Your task to perform on an android device: Do I have any events today? Image 0: 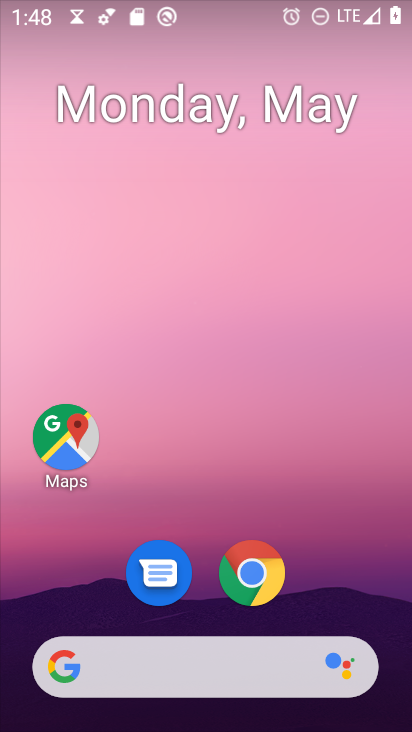
Step 0: drag from (238, 644) to (402, 36)
Your task to perform on an android device: Do I have any events today? Image 1: 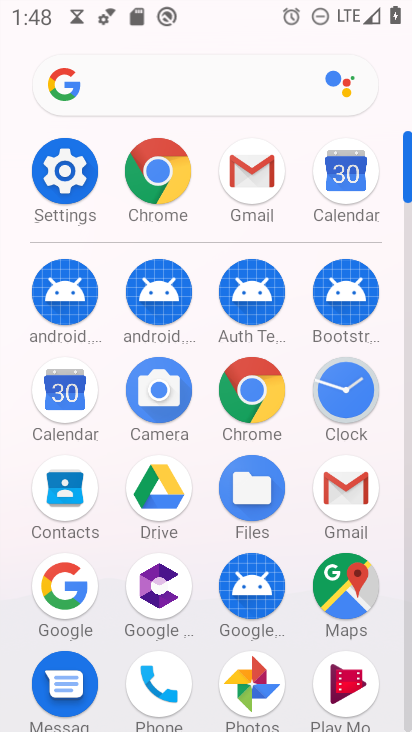
Step 1: click (91, 395)
Your task to perform on an android device: Do I have any events today? Image 2: 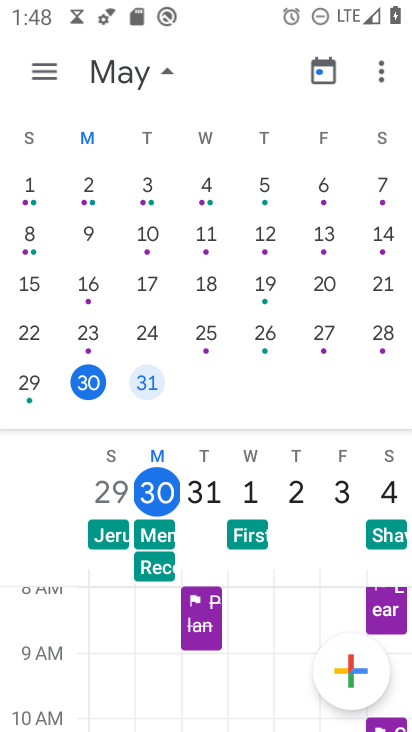
Step 2: click (72, 379)
Your task to perform on an android device: Do I have any events today? Image 3: 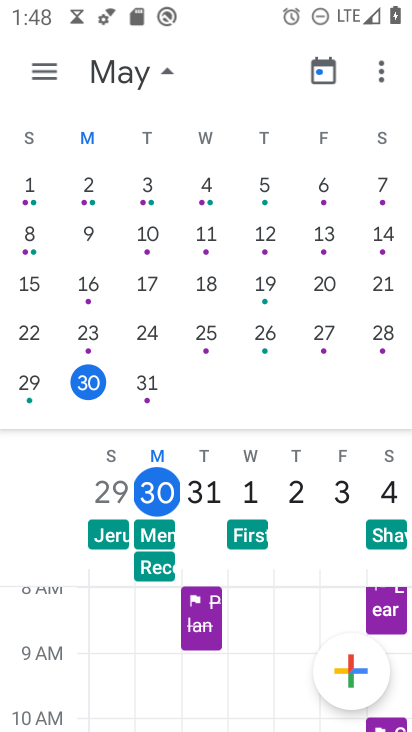
Step 3: task complete